Your task to perform on an android device: allow notifications from all sites in the chrome app Image 0: 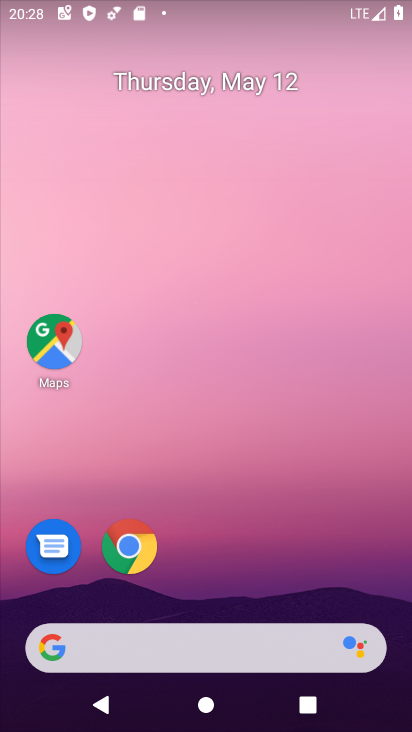
Step 0: click (128, 555)
Your task to perform on an android device: allow notifications from all sites in the chrome app Image 1: 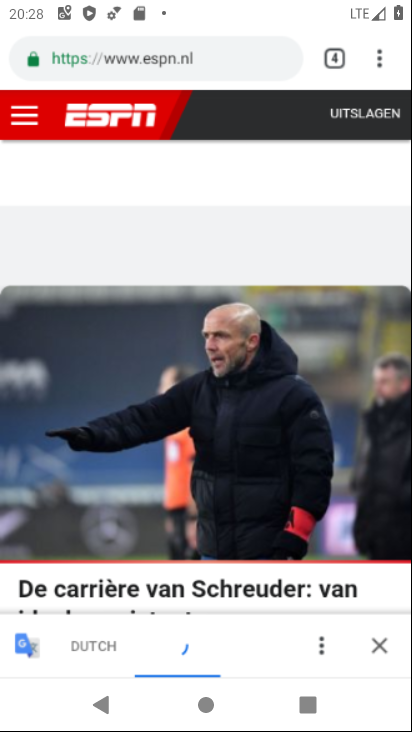
Step 1: click (384, 56)
Your task to perform on an android device: allow notifications from all sites in the chrome app Image 2: 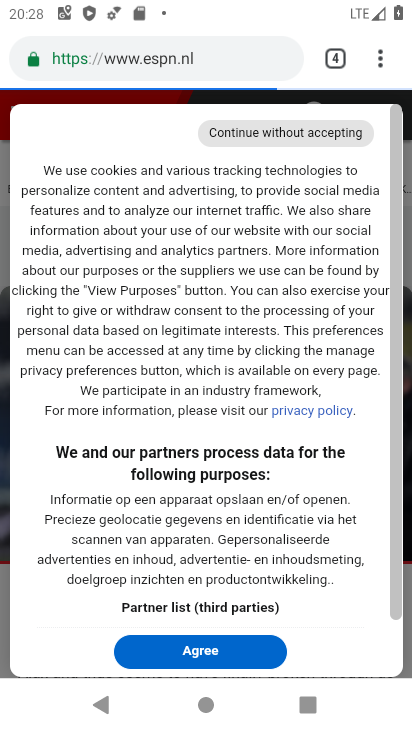
Step 2: drag from (377, 58) to (183, 572)
Your task to perform on an android device: allow notifications from all sites in the chrome app Image 3: 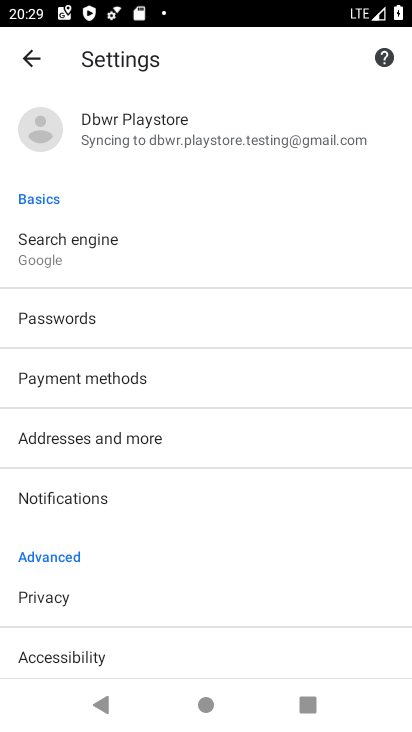
Step 3: drag from (129, 606) to (213, 182)
Your task to perform on an android device: allow notifications from all sites in the chrome app Image 4: 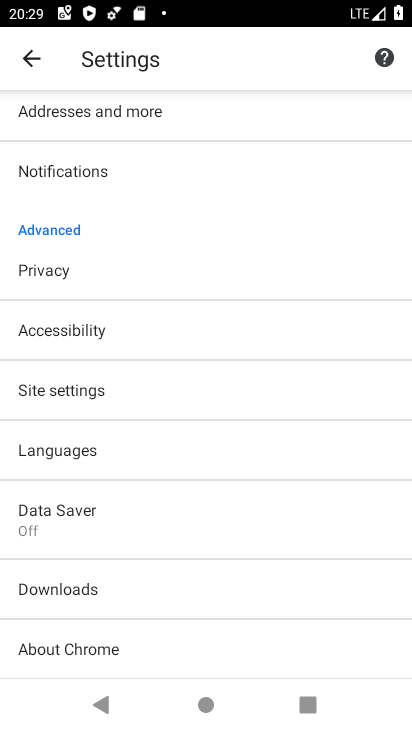
Step 4: click (85, 390)
Your task to perform on an android device: allow notifications from all sites in the chrome app Image 5: 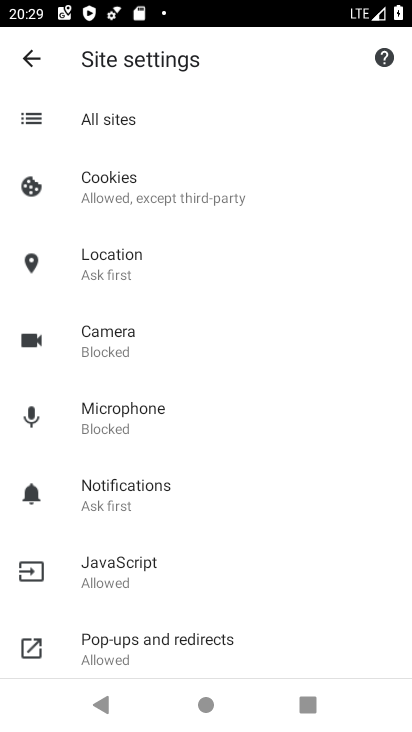
Step 5: click (138, 504)
Your task to perform on an android device: allow notifications from all sites in the chrome app Image 6: 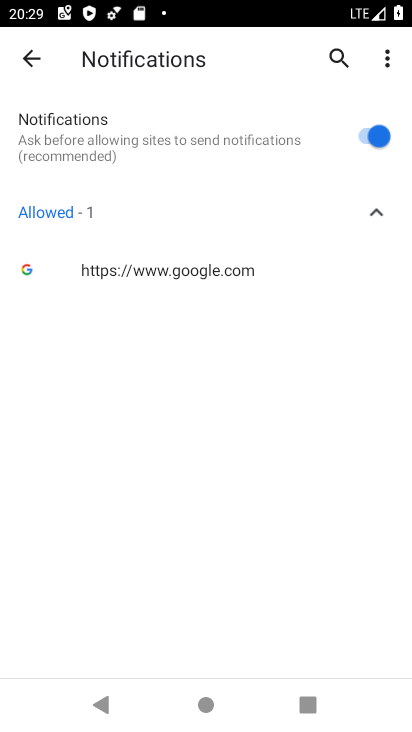
Step 6: task complete